Your task to perform on an android device: Set the phone to "Do not disturb". Image 0: 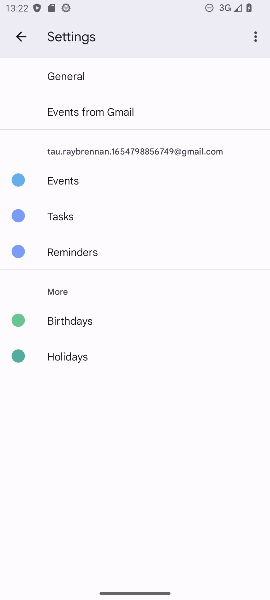
Step 0: press home button
Your task to perform on an android device: Set the phone to "Do not disturb". Image 1: 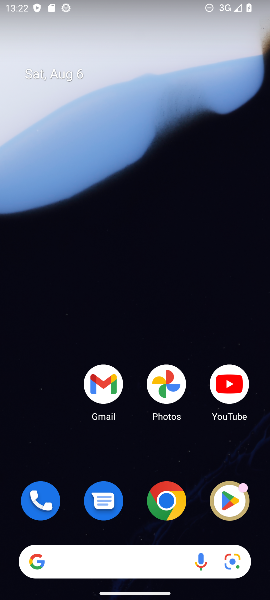
Step 1: drag from (137, 502) to (149, 129)
Your task to perform on an android device: Set the phone to "Do not disturb". Image 2: 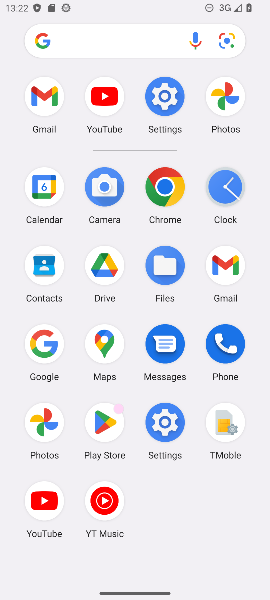
Step 2: click (168, 417)
Your task to perform on an android device: Set the phone to "Do not disturb". Image 3: 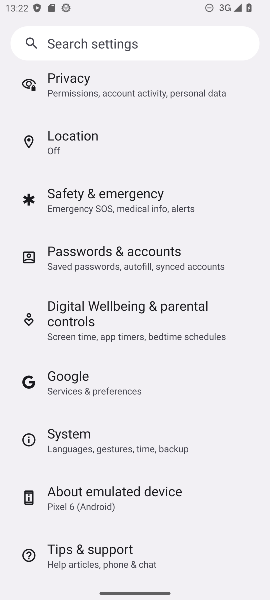
Step 3: drag from (132, 252) to (141, 473)
Your task to perform on an android device: Set the phone to "Do not disturb". Image 4: 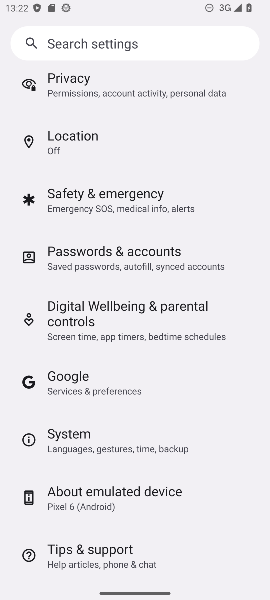
Step 4: drag from (115, 171) to (131, 487)
Your task to perform on an android device: Set the phone to "Do not disturb". Image 5: 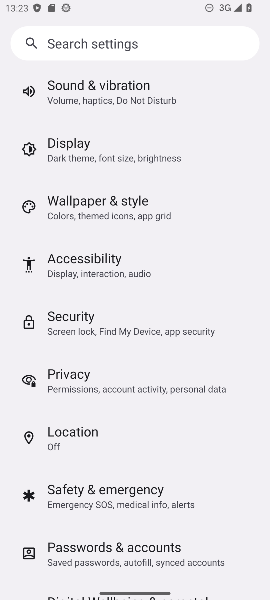
Step 5: click (108, 90)
Your task to perform on an android device: Set the phone to "Do not disturb". Image 6: 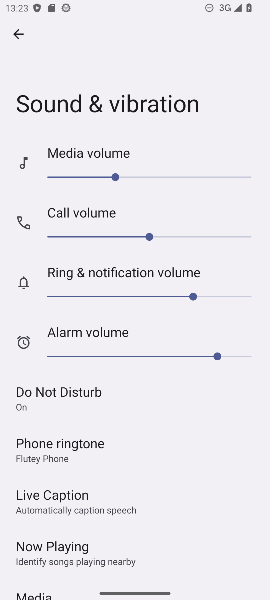
Step 6: click (98, 395)
Your task to perform on an android device: Set the phone to "Do not disturb". Image 7: 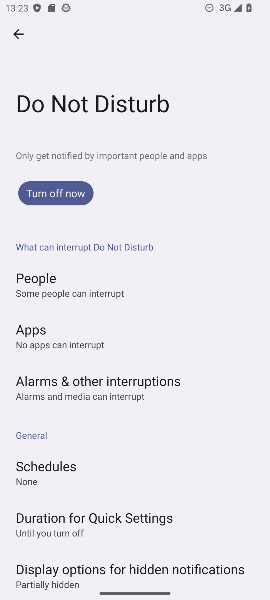
Step 7: task complete